Your task to perform on an android device: Go to internet settings Image 0: 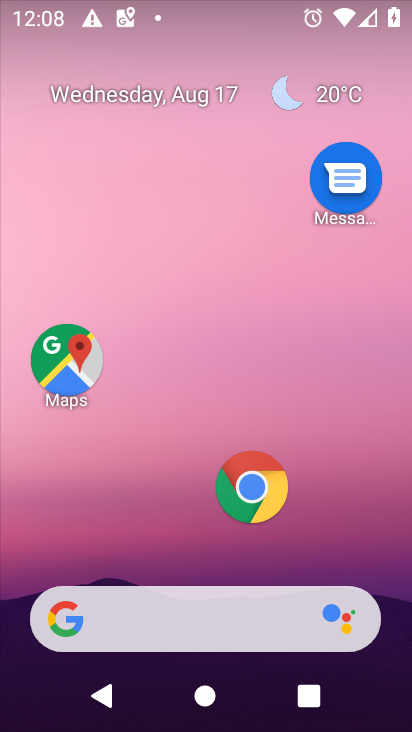
Step 0: drag from (184, 476) to (268, 185)
Your task to perform on an android device: Go to internet settings Image 1: 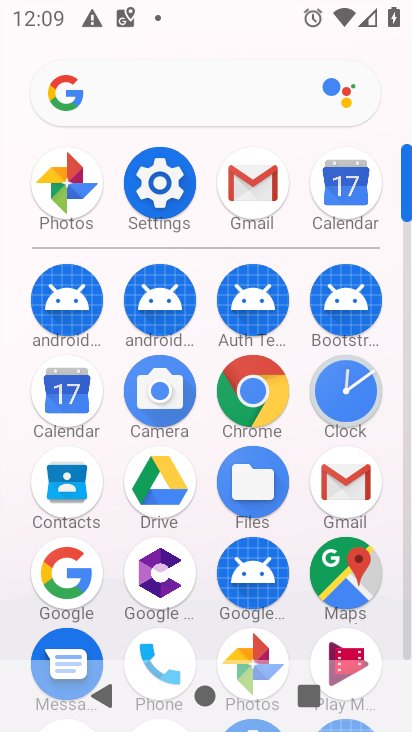
Step 1: click (175, 186)
Your task to perform on an android device: Go to internet settings Image 2: 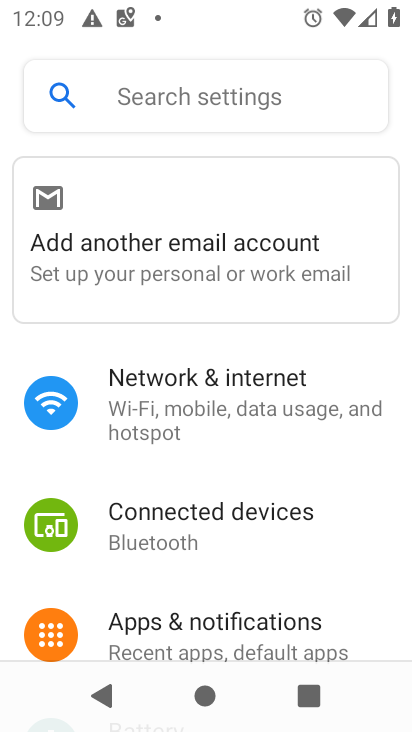
Step 2: click (161, 373)
Your task to perform on an android device: Go to internet settings Image 3: 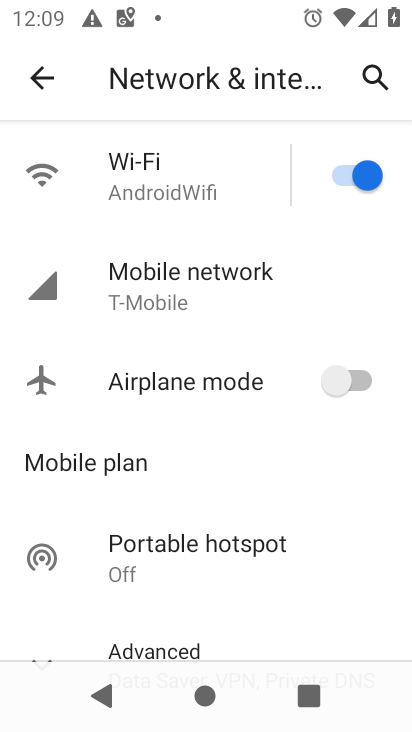
Step 3: task complete